Your task to perform on an android device: turn off picture-in-picture Image 0: 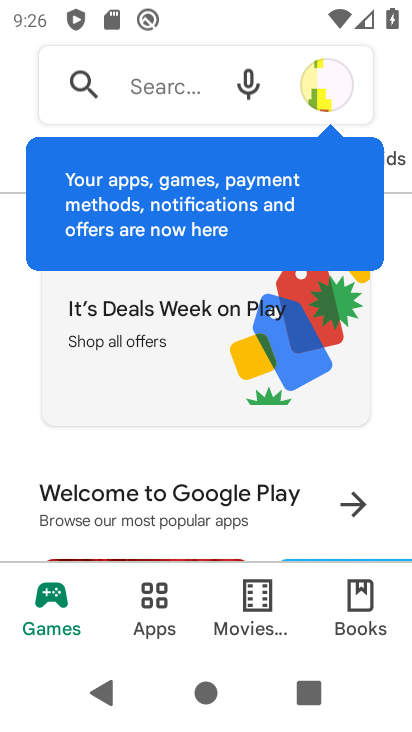
Step 0: press home button
Your task to perform on an android device: turn off picture-in-picture Image 1: 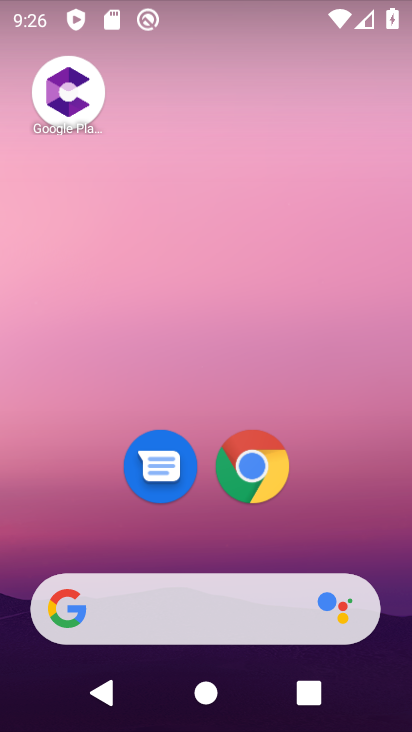
Step 1: click (239, 490)
Your task to perform on an android device: turn off picture-in-picture Image 2: 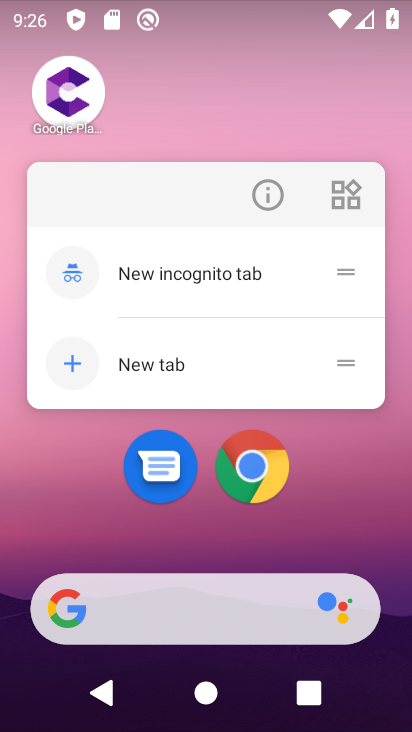
Step 2: click (265, 202)
Your task to perform on an android device: turn off picture-in-picture Image 3: 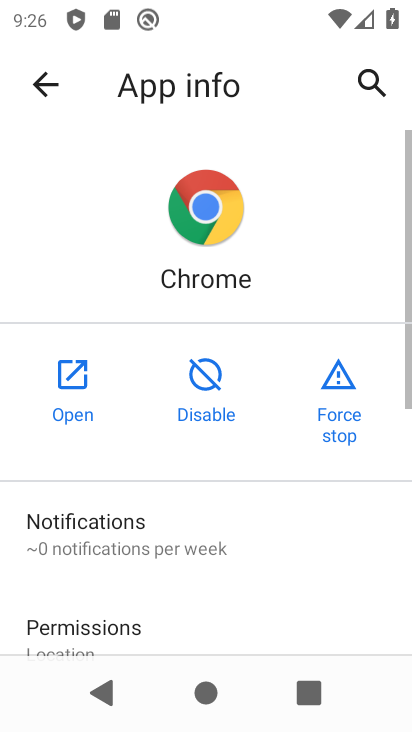
Step 3: drag from (192, 575) to (178, 266)
Your task to perform on an android device: turn off picture-in-picture Image 4: 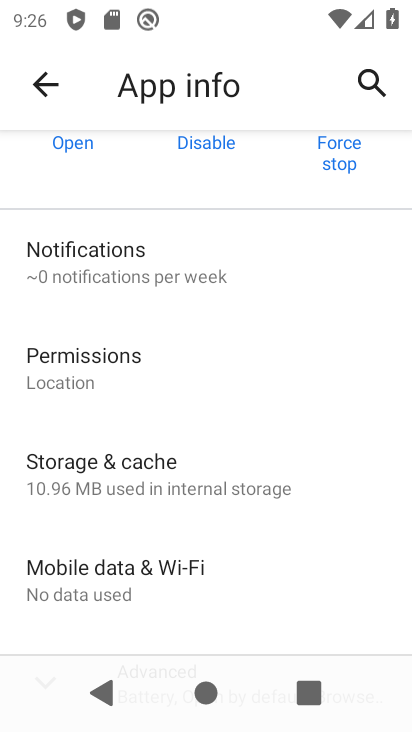
Step 4: drag from (236, 523) to (246, 203)
Your task to perform on an android device: turn off picture-in-picture Image 5: 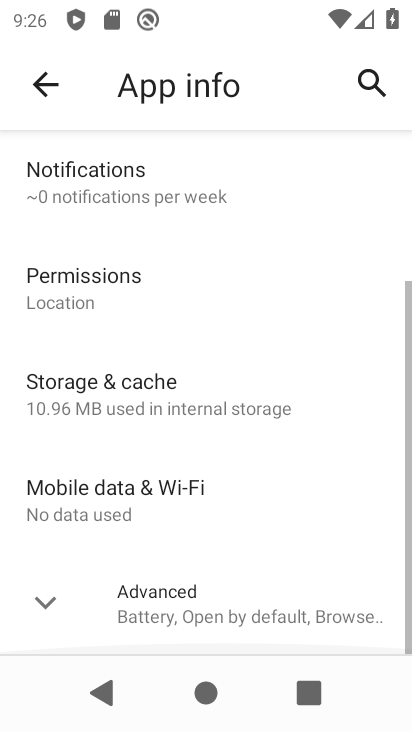
Step 5: click (196, 617)
Your task to perform on an android device: turn off picture-in-picture Image 6: 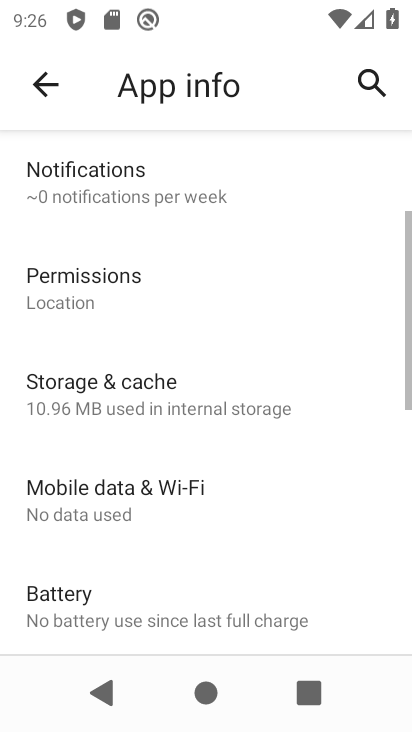
Step 6: drag from (218, 603) to (265, 277)
Your task to perform on an android device: turn off picture-in-picture Image 7: 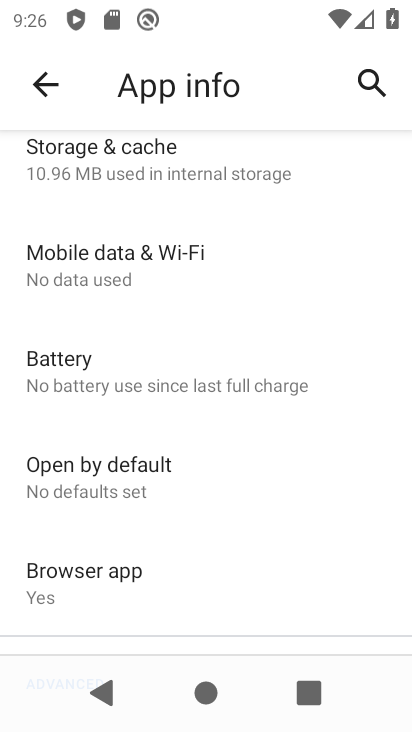
Step 7: drag from (213, 578) to (220, 266)
Your task to perform on an android device: turn off picture-in-picture Image 8: 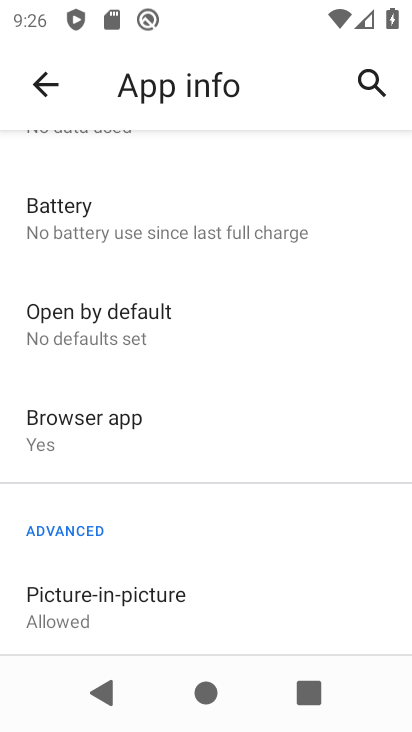
Step 8: click (200, 591)
Your task to perform on an android device: turn off picture-in-picture Image 9: 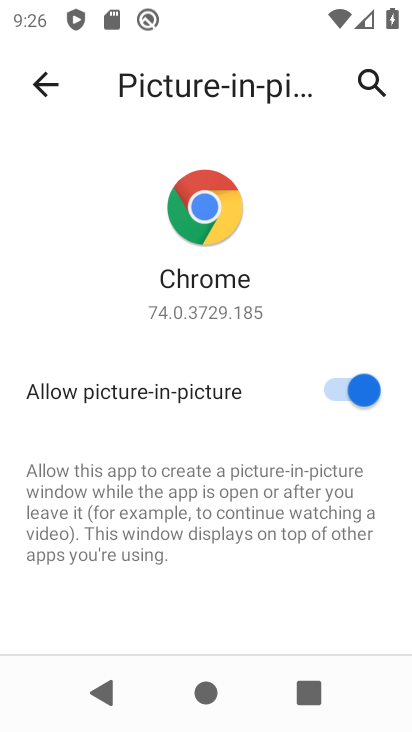
Step 9: click (329, 381)
Your task to perform on an android device: turn off picture-in-picture Image 10: 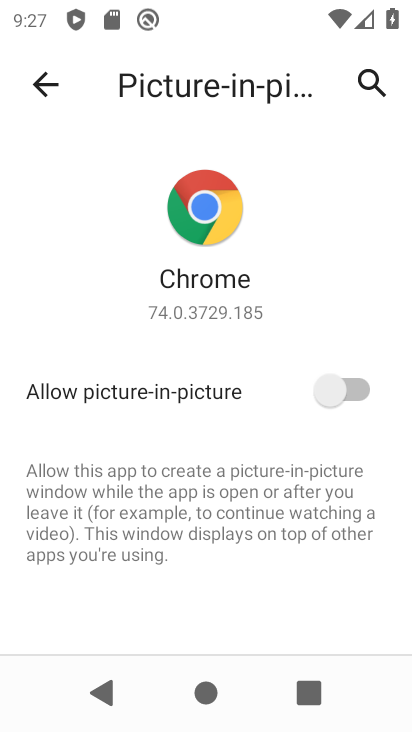
Step 10: task complete